Your task to perform on an android device: turn smart compose on in the gmail app Image 0: 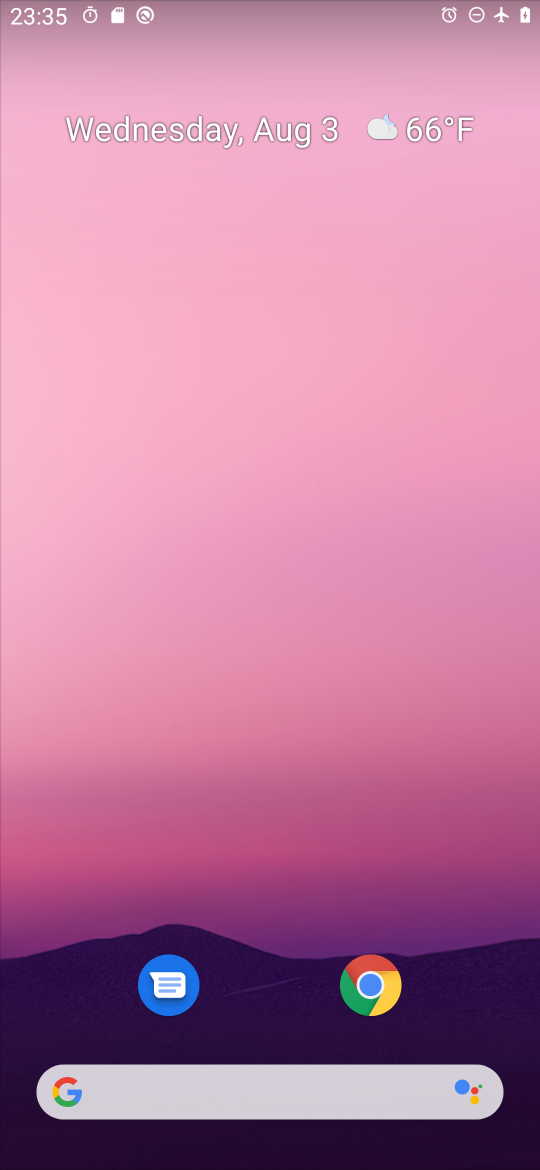
Step 0: drag from (232, 1000) to (242, 237)
Your task to perform on an android device: turn smart compose on in the gmail app Image 1: 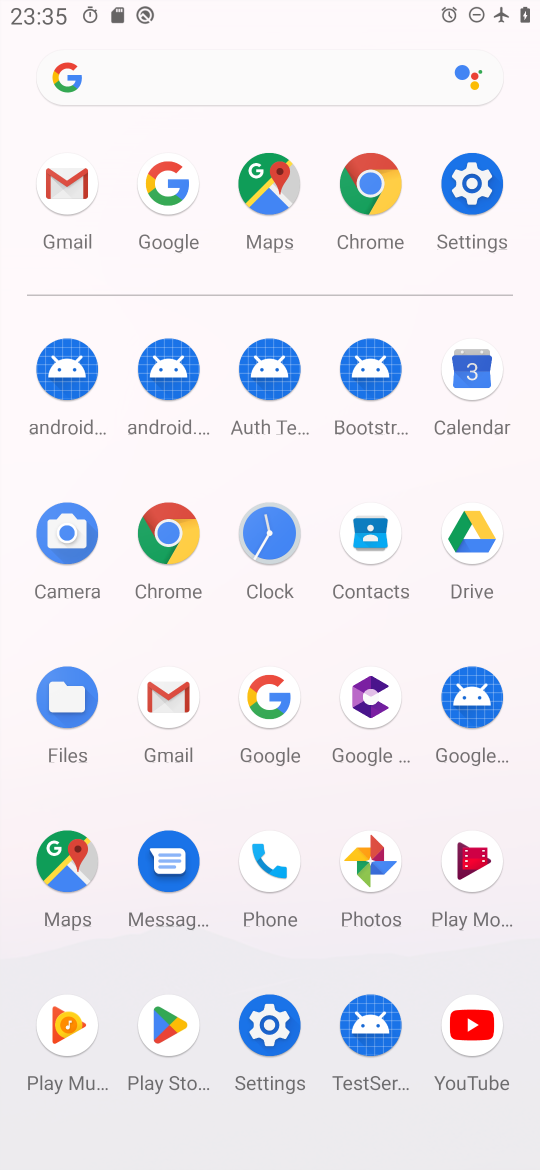
Step 1: click (79, 200)
Your task to perform on an android device: turn smart compose on in the gmail app Image 2: 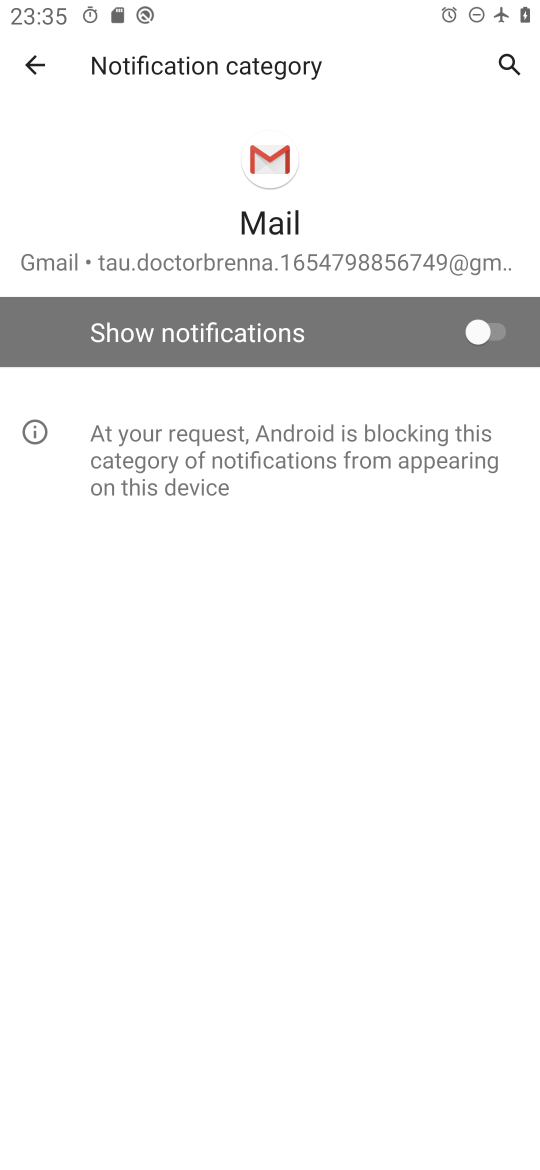
Step 2: click (54, 72)
Your task to perform on an android device: turn smart compose on in the gmail app Image 3: 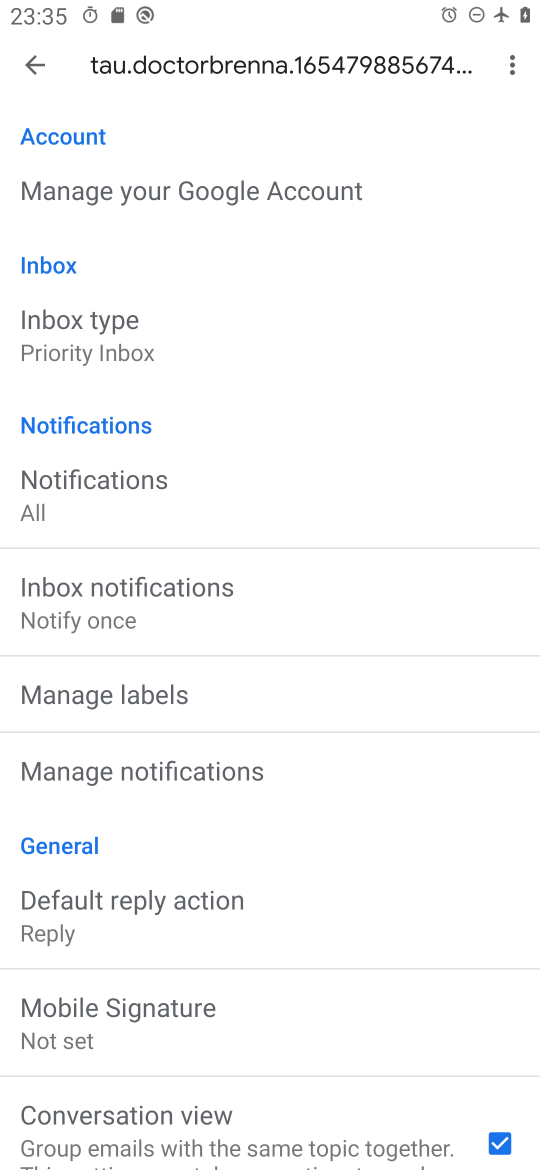
Step 3: task complete